Your task to perform on an android device: Go to location settings Image 0: 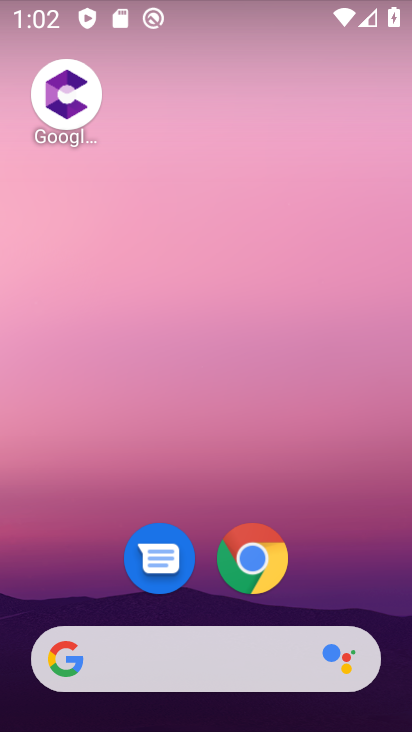
Step 0: drag from (213, 725) to (218, 194)
Your task to perform on an android device: Go to location settings Image 1: 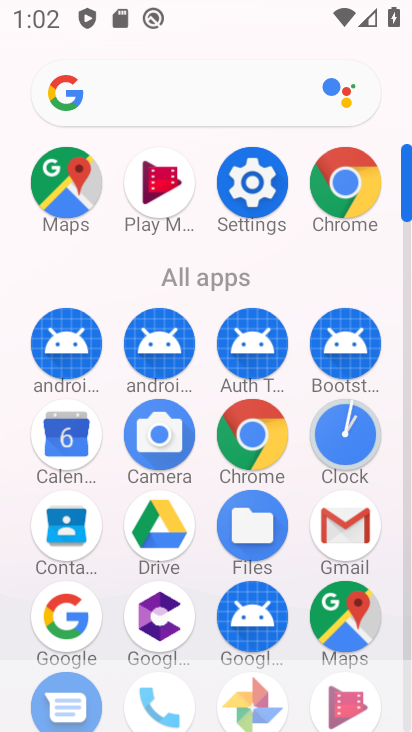
Step 1: click (242, 188)
Your task to perform on an android device: Go to location settings Image 2: 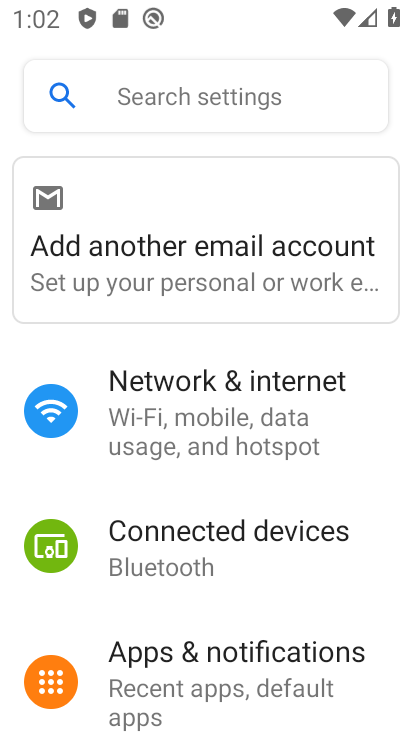
Step 2: drag from (201, 532) to (203, 335)
Your task to perform on an android device: Go to location settings Image 3: 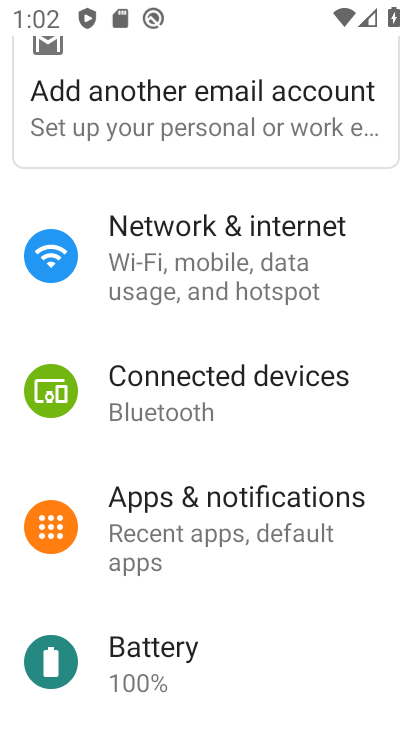
Step 3: drag from (191, 683) to (186, 286)
Your task to perform on an android device: Go to location settings Image 4: 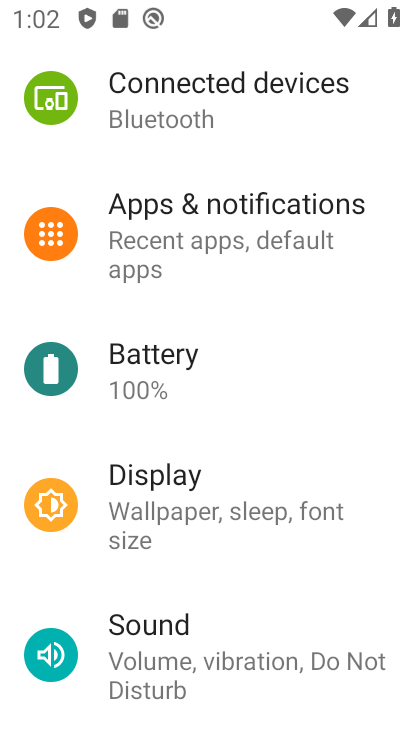
Step 4: drag from (197, 697) to (204, 291)
Your task to perform on an android device: Go to location settings Image 5: 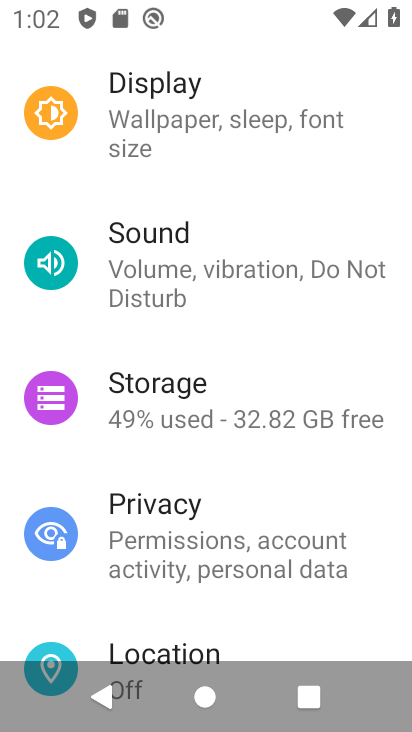
Step 5: click (182, 637)
Your task to perform on an android device: Go to location settings Image 6: 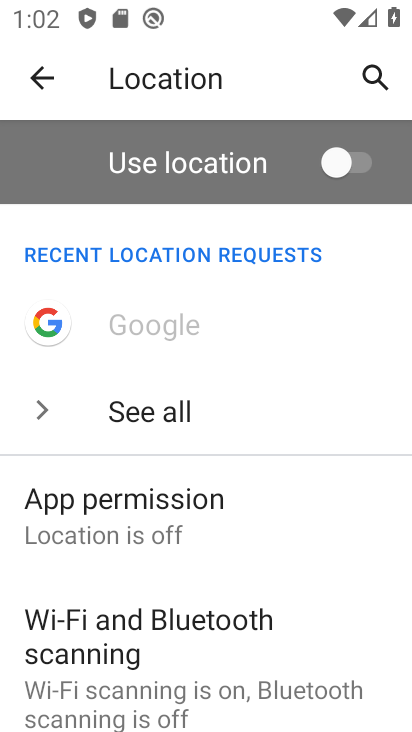
Step 6: task complete